Your task to perform on an android device: toggle notifications settings in the gmail app Image 0: 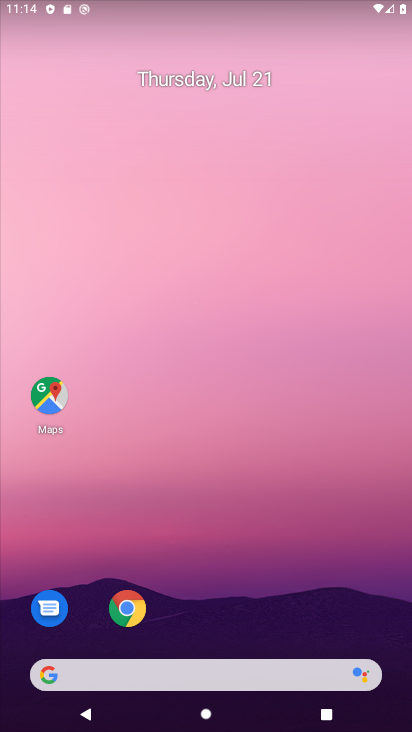
Step 0: drag from (211, 605) to (223, 126)
Your task to perform on an android device: toggle notifications settings in the gmail app Image 1: 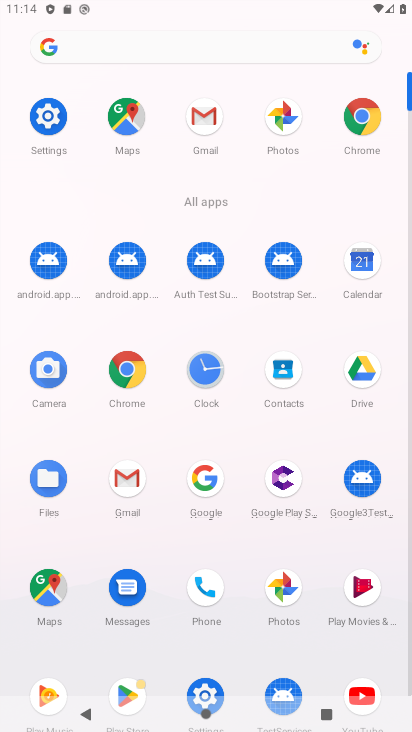
Step 1: click (124, 494)
Your task to perform on an android device: toggle notifications settings in the gmail app Image 2: 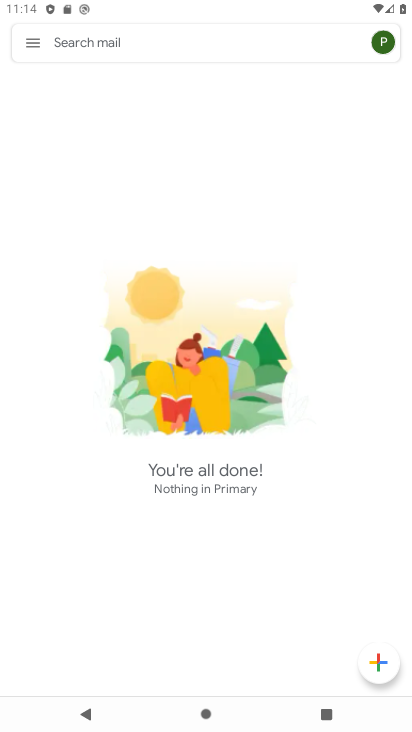
Step 2: click (33, 35)
Your task to perform on an android device: toggle notifications settings in the gmail app Image 3: 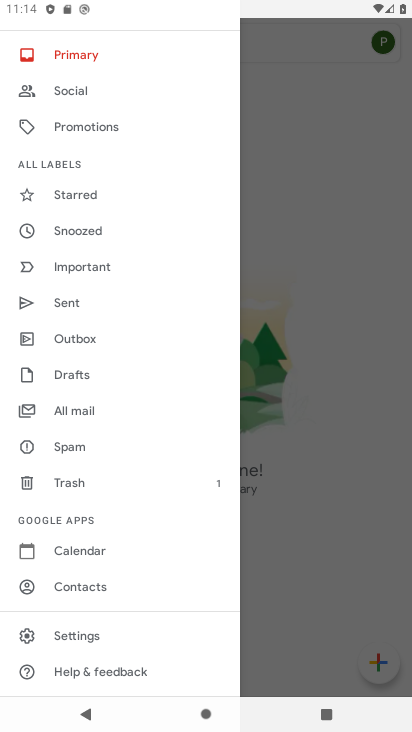
Step 3: click (59, 641)
Your task to perform on an android device: toggle notifications settings in the gmail app Image 4: 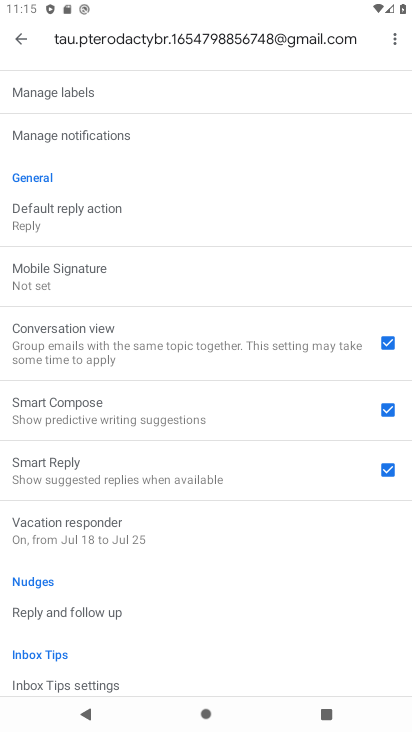
Step 4: click (22, 36)
Your task to perform on an android device: toggle notifications settings in the gmail app Image 5: 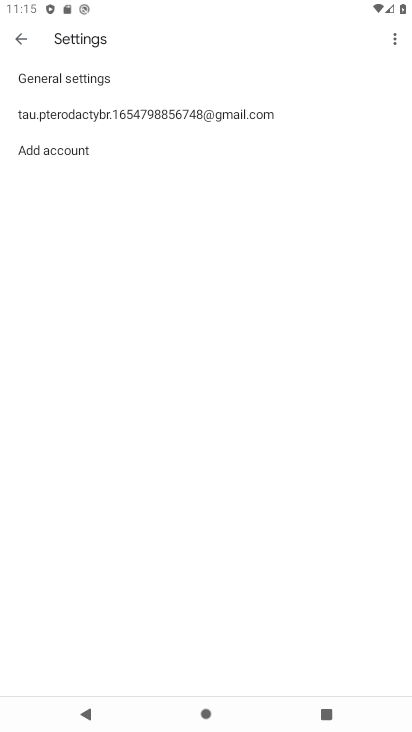
Step 5: click (71, 80)
Your task to perform on an android device: toggle notifications settings in the gmail app Image 6: 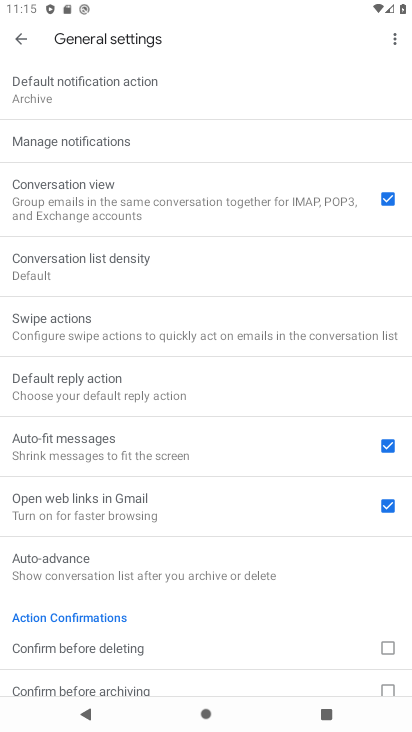
Step 6: click (87, 145)
Your task to perform on an android device: toggle notifications settings in the gmail app Image 7: 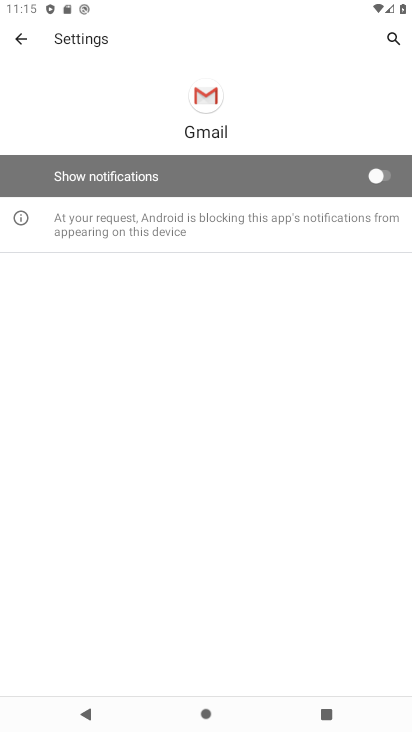
Step 7: click (347, 179)
Your task to perform on an android device: toggle notifications settings in the gmail app Image 8: 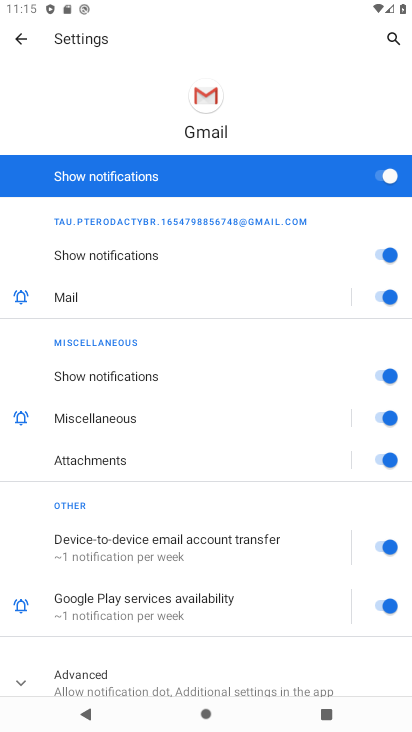
Step 8: task complete